Your task to perform on an android device: Go to internet settings Image 0: 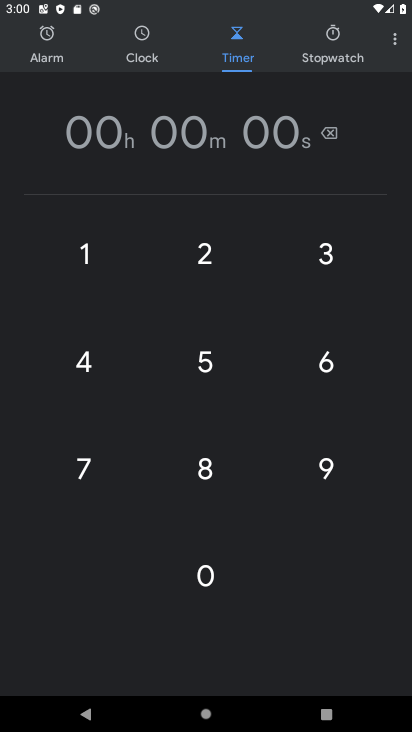
Step 0: press home button
Your task to perform on an android device: Go to internet settings Image 1: 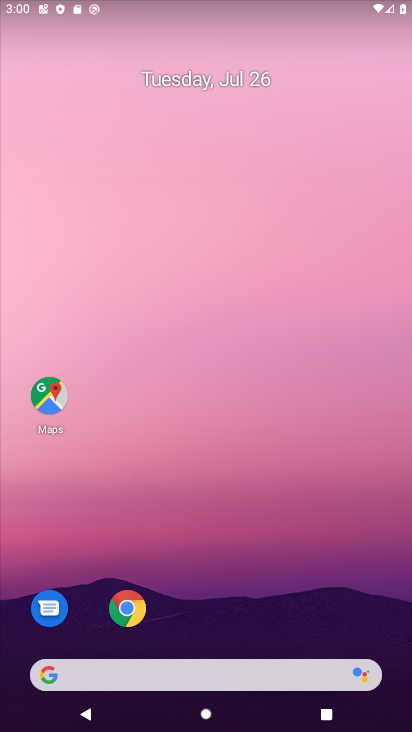
Step 1: drag from (216, 645) to (225, 26)
Your task to perform on an android device: Go to internet settings Image 2: 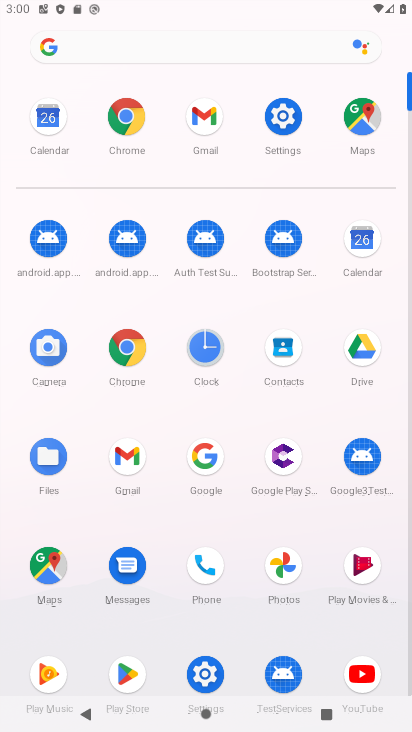
Step 2: click (281, 107)
Your task to perform on an android device: Go to internet settings Image 3: 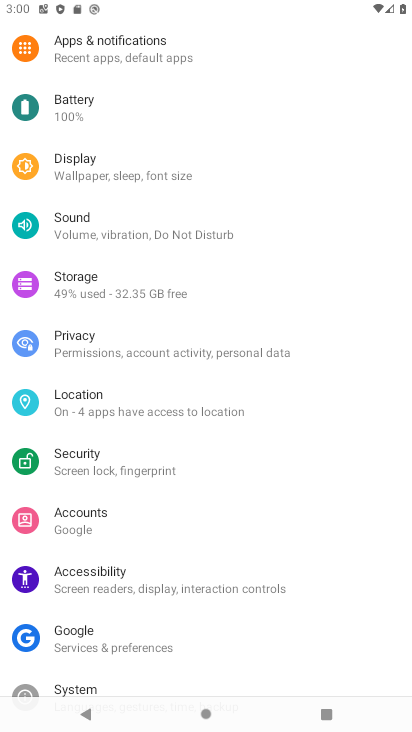
Step 3: drag from (171, 290) to (168, 441)
Your task to perform on an android device: Go to internet settings Image 4: 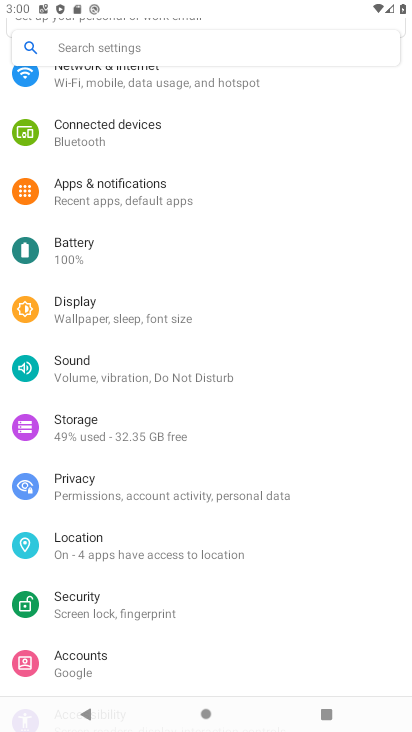
Step 4: drag from (84, 114) to (88, 352)
Your task to perform on an android device: Go to internet settings Image 5: 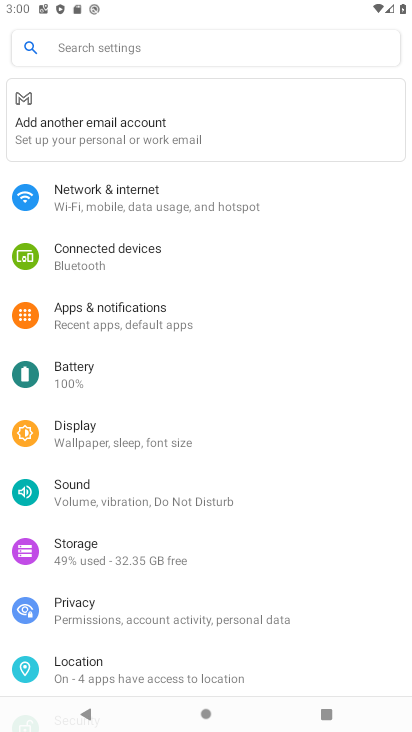
Step 5: click (104, 190)
Your task to perform on an android device: Go to internet settings Image 6: 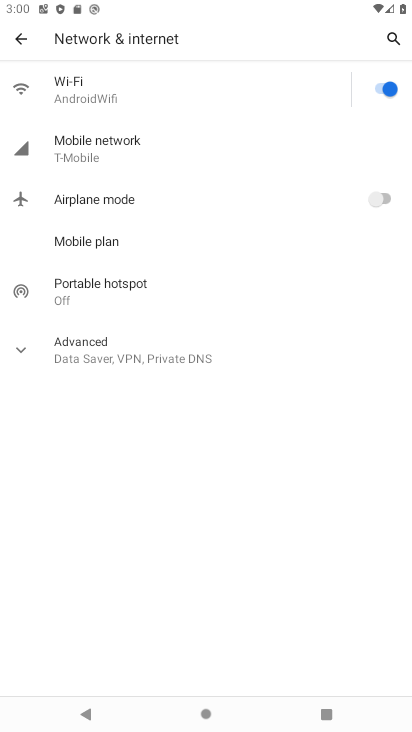
Step 6: task complete